Your task to perform on an android device: turn off picture-in-picture Image 0: 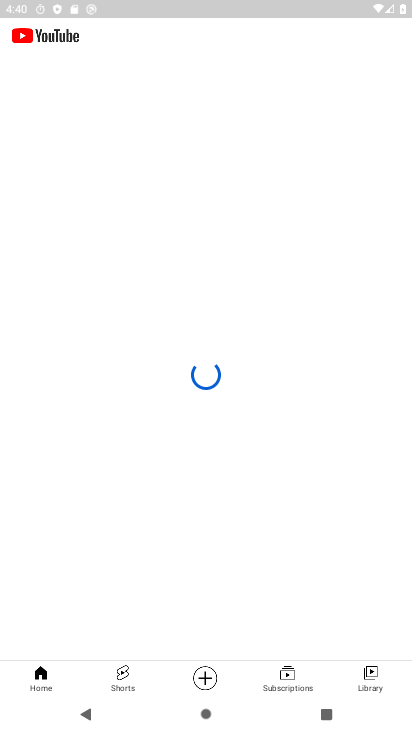
Step 0: press home button
Your task to perform on an android device: turn off picture-in-picture Image 1: 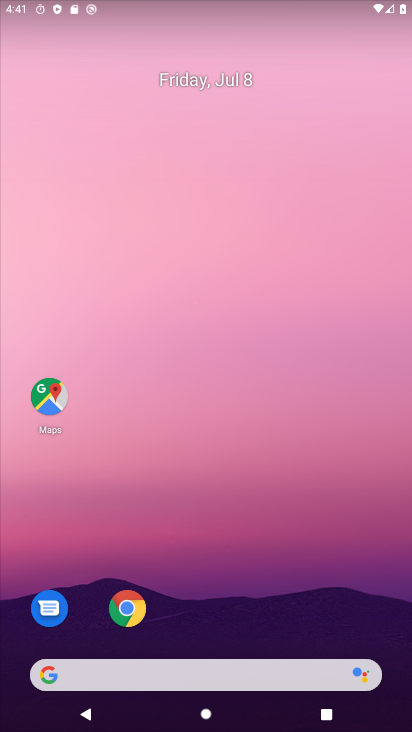
Step 1: click (134, 607)
Your task to perform on an android device: turn off picture-in-picture Image 2: 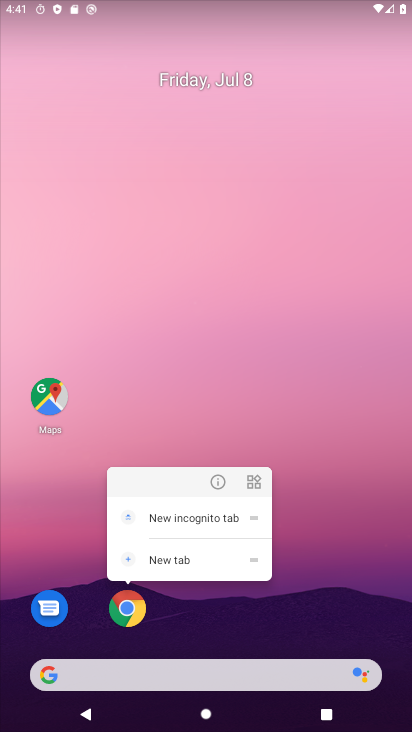
Step 2: click (216, 480)
Your task to perform on an android device: turn off picture-in-picture Image 3: 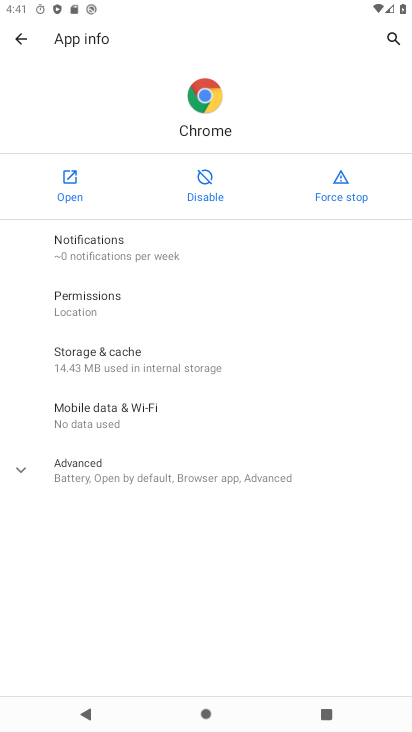
Step 3: click (95, 471)
Your task to perform on an android device: turn off picture-in-picture Image 4: 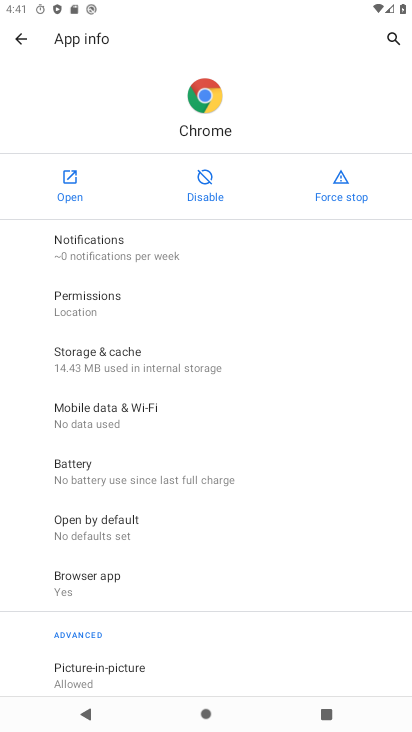
Step 4: click (146, 672)
Your task to perform on an android device: turn off picture-in-picture Image 5: 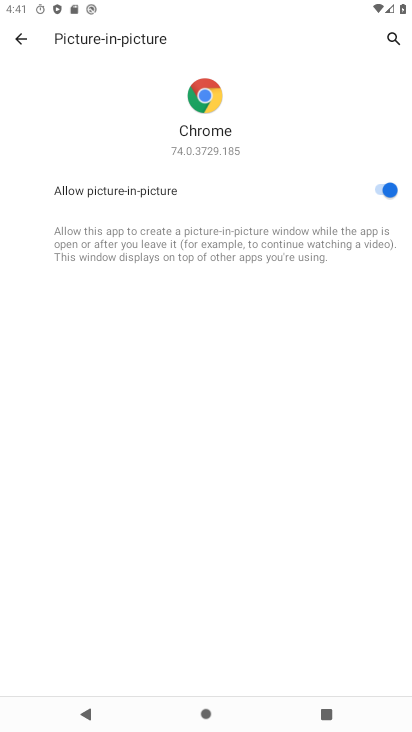
Step 5: click (381, 191)
Your task to perform on an android device: turn off picture-in-picture Image 6: 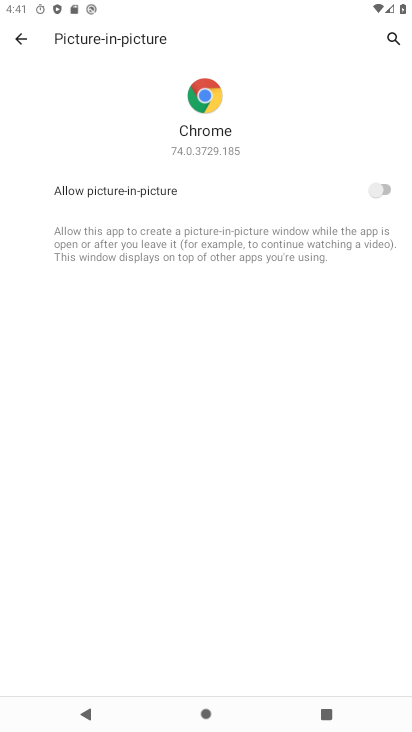
Step 6: task complete